Your task to perform on an android device: toggle priority inbox in the gmail app Image 0: 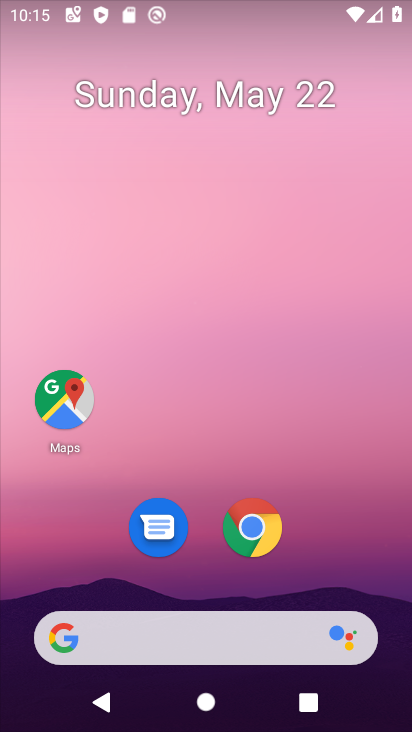
Step 0: drag from (348, 579) to (333, 230)
Your task to perform on an android device: toggle priority inbox in the gmail app Image 1: 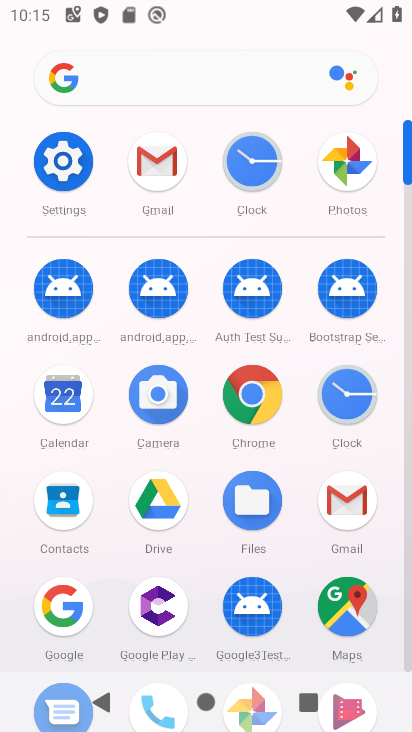
Step 1: click (351, 501)
Your task to perform on an android device: toggle priority inbox in the gmail app Image 2: 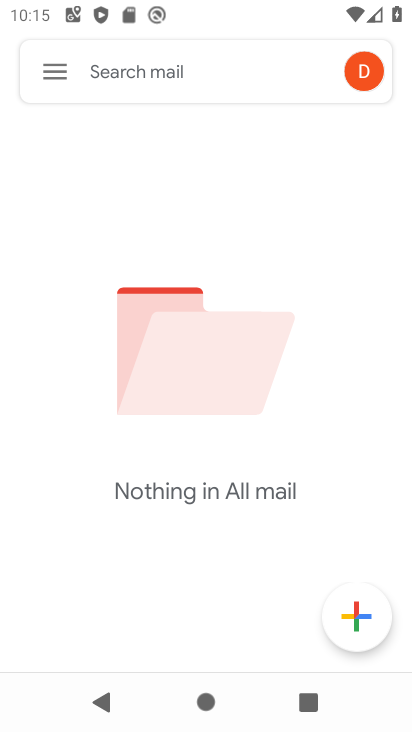
Step 2: click (42, 91)
Your task to perform on an android device: toggle priority inbox in the gmail app Image 3: 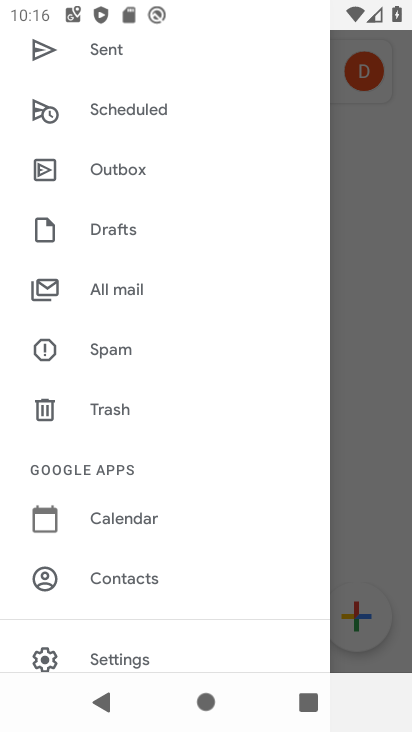
Step 3: task complete